Your task to perform on an android device: Open my contact list Image 0: 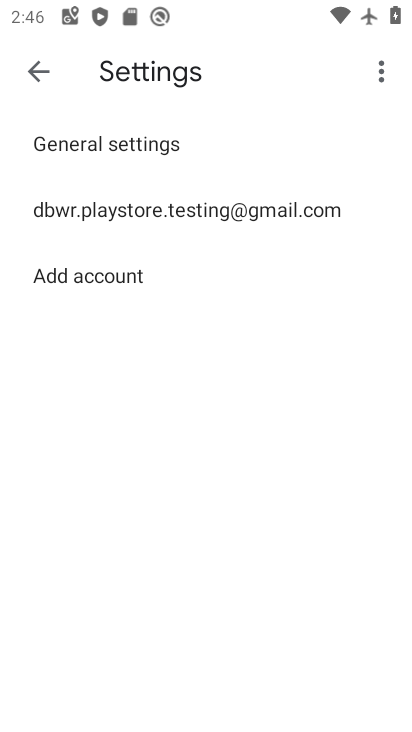
Step 0: press home button
Your task to perform on an android device: Open my contact list Image 1: 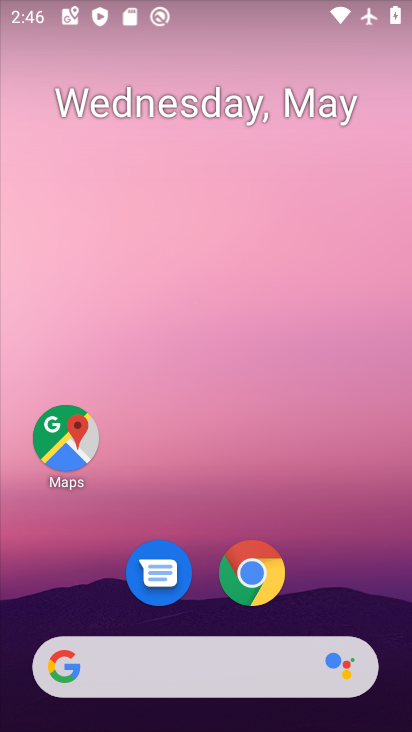
Step 1: drag from (310, 599) to (315, 41)
Your task to perform on an android device: Open my contact list Image 2: 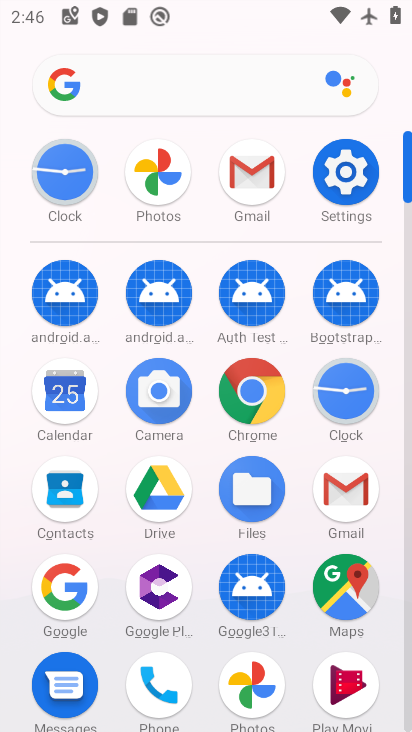
Step 2: click (66, 503)
Your task to perform on an android device: Open my contact list Image 3: 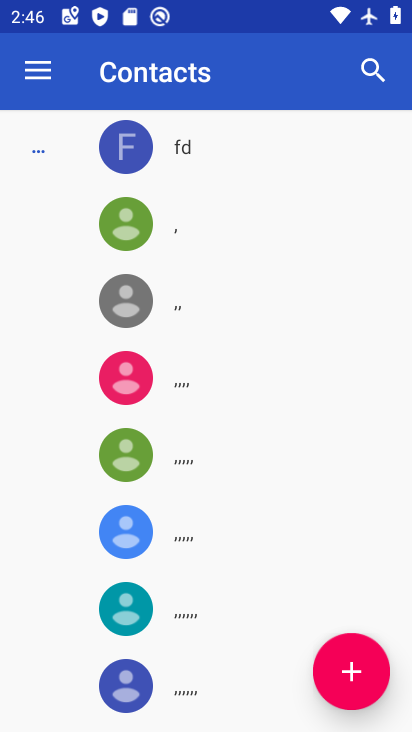
Step 3: task complete